Your task to perform on an android device: find photos in the google photos app Image 0: 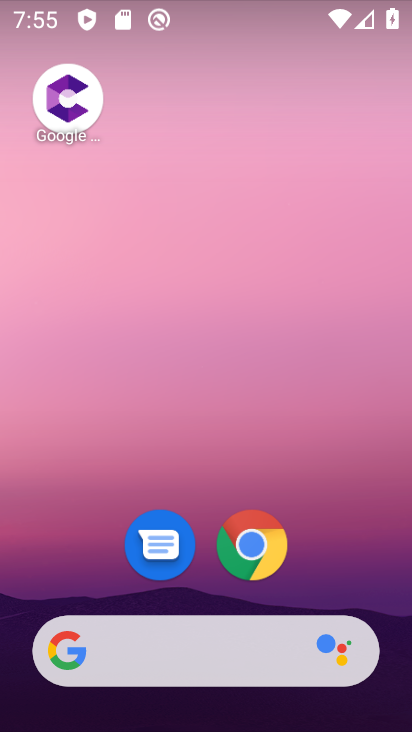
Step 0: drag from (321, 537) to (296, 161)
Your task to perform on an android device: find photos in the google photos app Image 1: 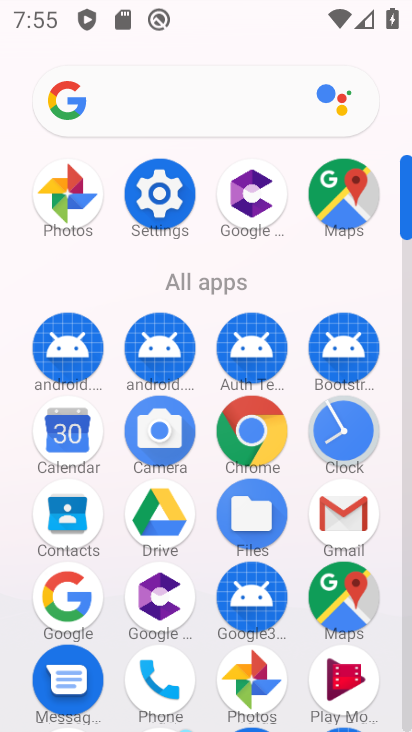
Step 1: click (246, 681)
Your task to perform on an android device: find photos in the google photos app Image 2: 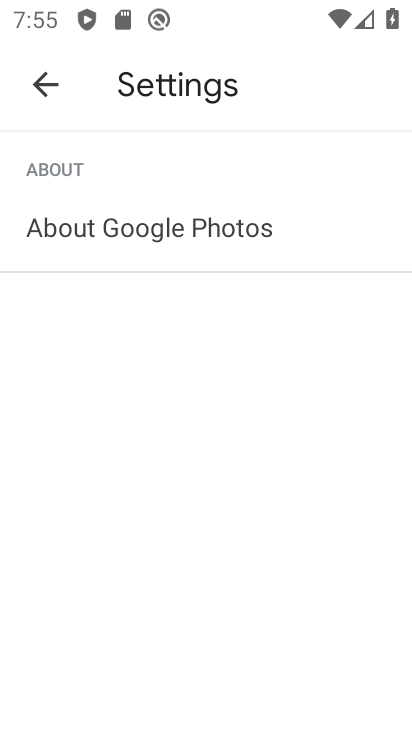
Step 2: click (43, 72)
Your task to perform on an android device: find photos in the google photos app Image 3: 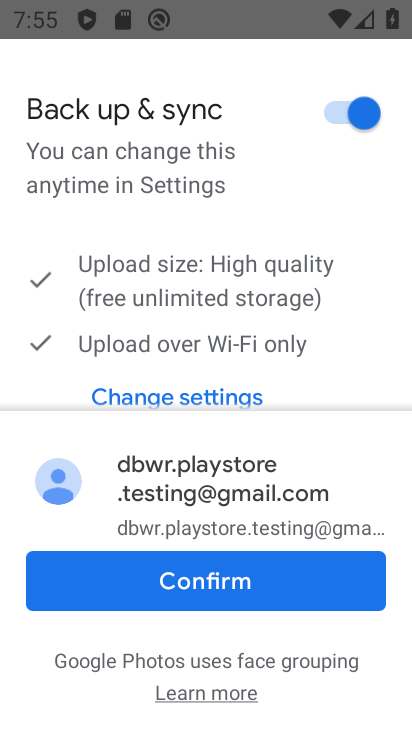
Step 3: click (230, 579)
Your task to perform on an android device: find photos in the google photos app Image 4: 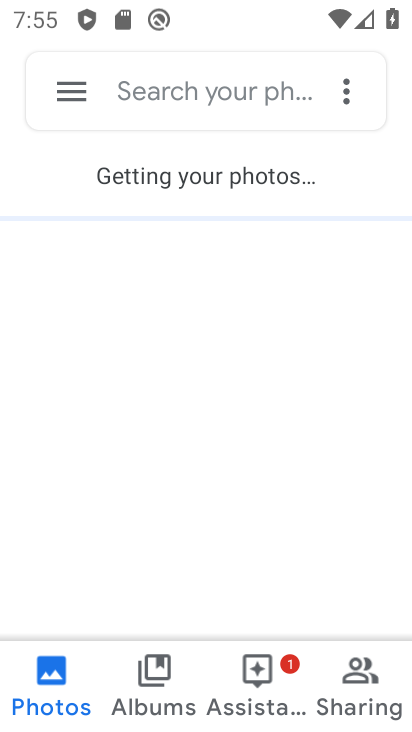
Step 4: task complete